Your task to perform on an android device: toggle show notifications on the lock screen Image 0: 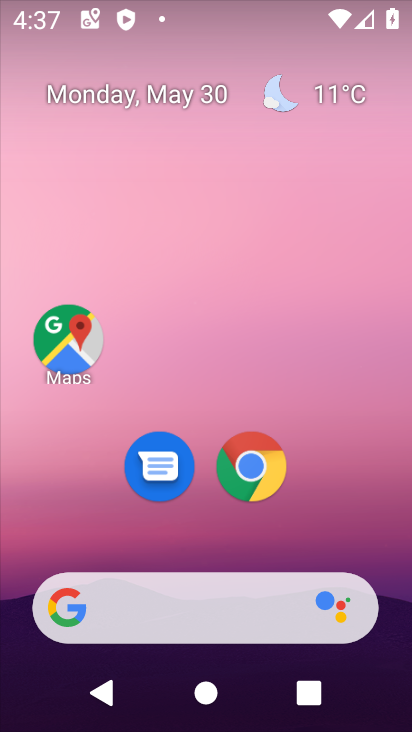
Step 0: drag from (351, 478) to (255, 0)
Your task to perform on an android device: toggle show notifications on the lock screen Image 1: 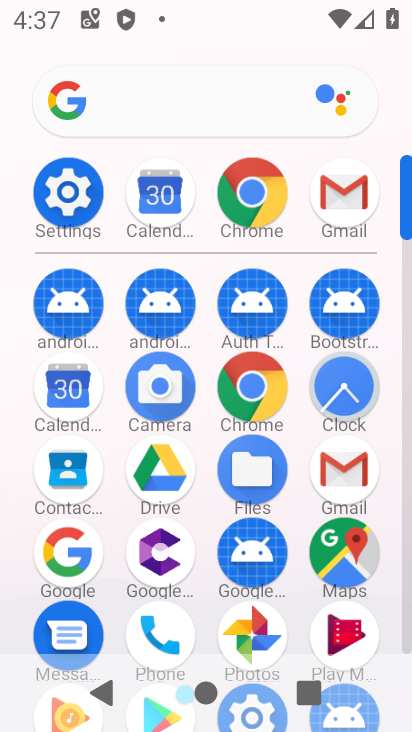
Step 1: click (85, 180)
Your task to perform on an android device: toggle show notifications on the lock screen Image 2: 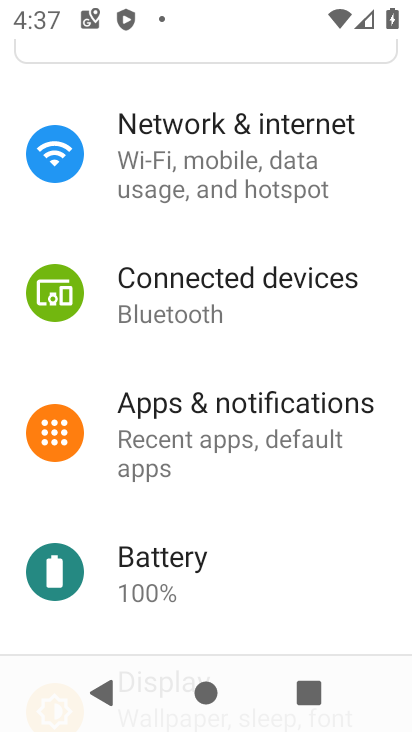
Step 2: drag from (255, 148) to (258, 553)
Your task to perform on an android device: toggle show notifications on the lock screen Image 3: 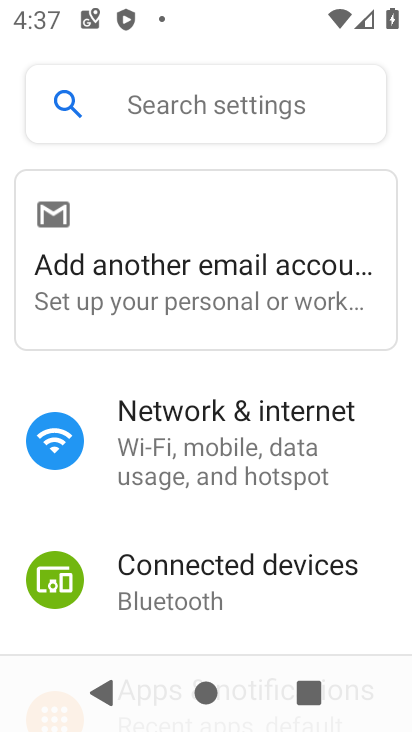
Step 3: drag from (170, 545) to (174, 256)
Your task to perform on an android device: toggle show notifications on the lock screen Image 4: 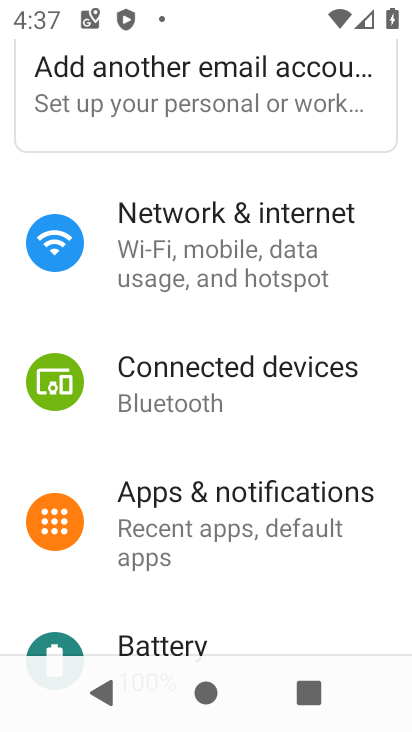
Step 4: click (179, 514)
Your task to perform on an android device: toggle show notifications on the lock screen Image 5: 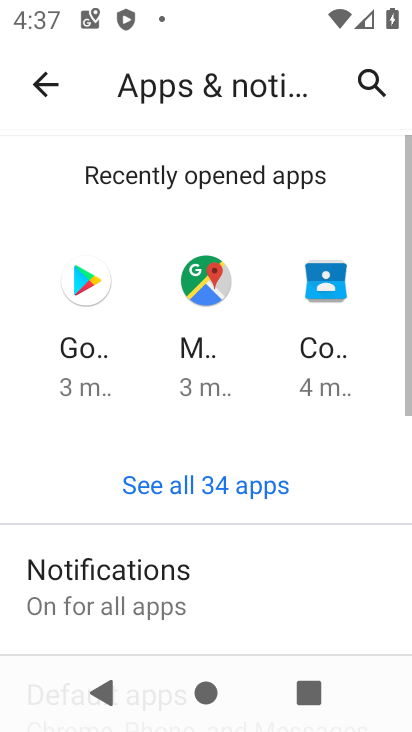
Step 5: click (191, 569)
Your task to perform on an android device: toggle show notifications on the lock screen Image 6: 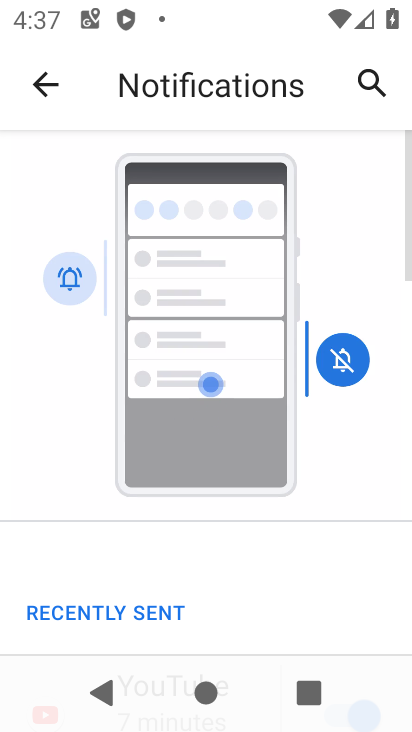
Step 6: drag from (308, 598) to (201, 61)
Your task to perform on an android device: toggle show notifications on the lock screen Image 7: 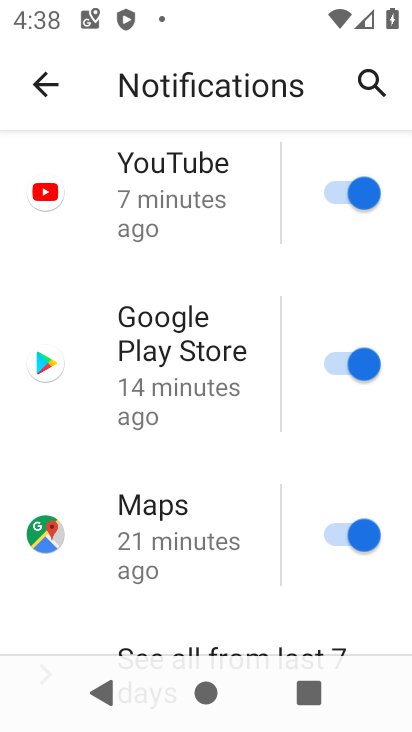
Step 7: drag from (213, 576) to (266, 124)
Your task to perform on an android device: toggle show notifications on the lock screen Image 8: 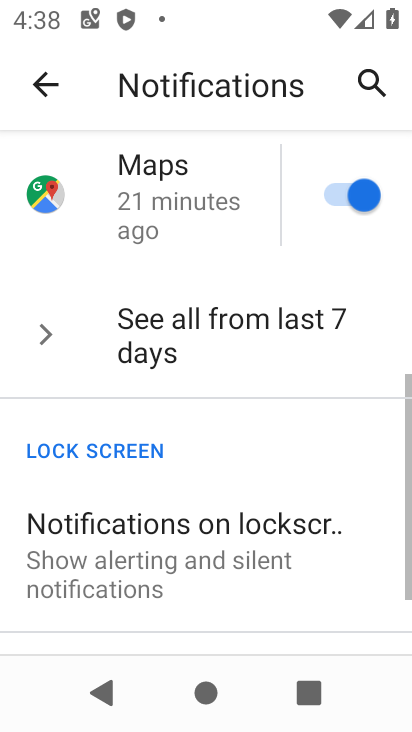
Step 8: click (270, 113)
Your task to perform on an android device: toggle show notifications on the lock screen Image 9: 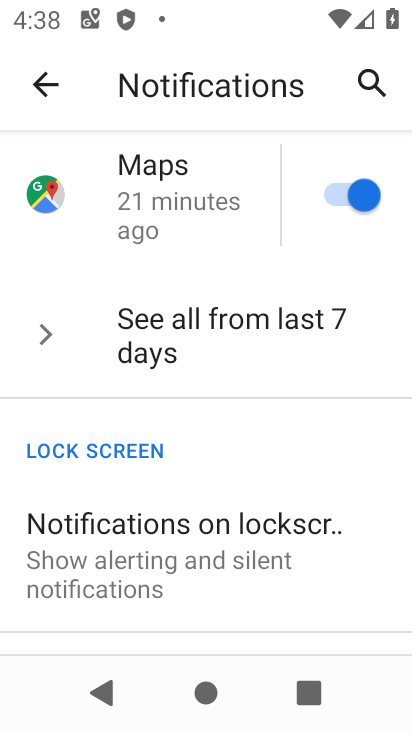
Step 9: click (230, 572)
Your task to perform on an android device: toggle show notifications on the lock screen Image 10: 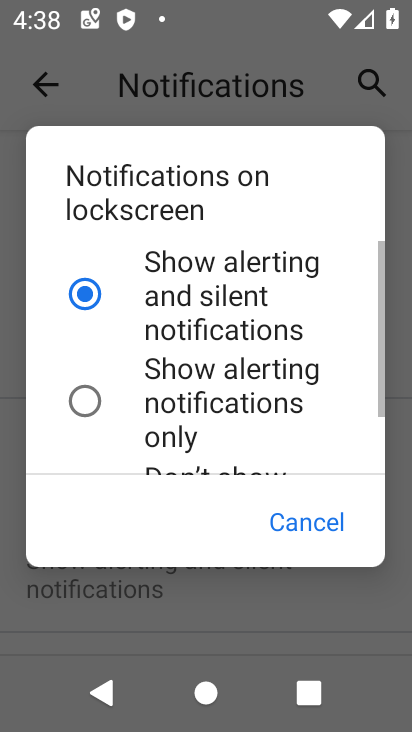
Step 10: drag from (244, 424) to (255, 125)
Your task to perform on an android device: toggle show notifications on the lock screen Image 11: 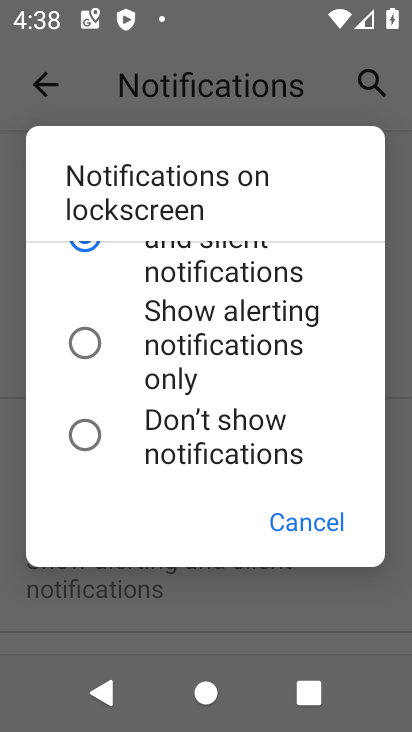
Step 11: click (179, 326)
Your task to perform on an android device: toggle show notifications on the lock screen Image 12: 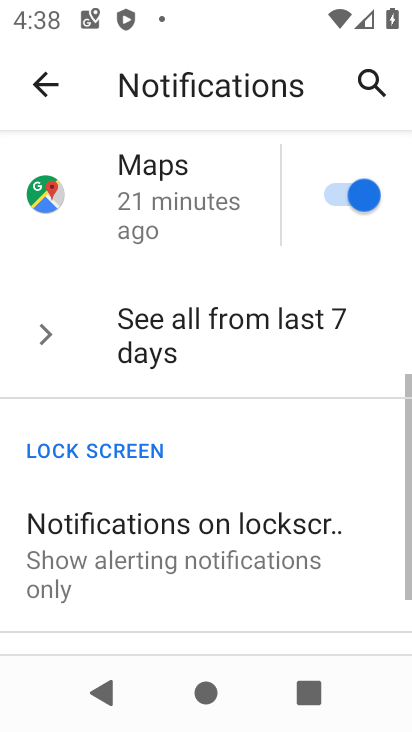
Step 12: task complete